Your task to perform on an android device: refresh tabs in the chrome app Image 0: 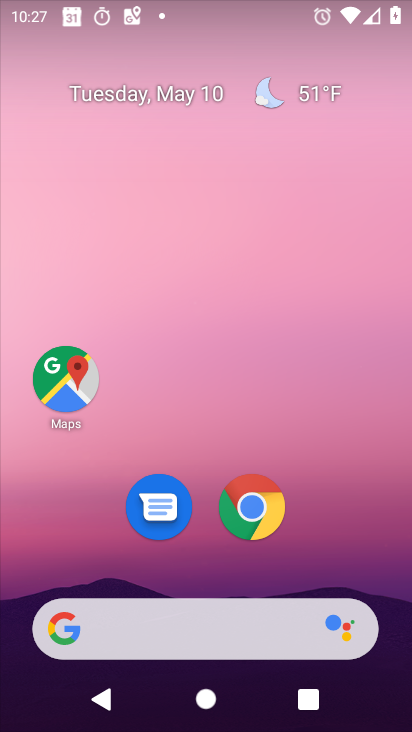
Step 0: click (251, 507)
Your task to perform on an android device: refresh tabs in the chrome app Image 1: 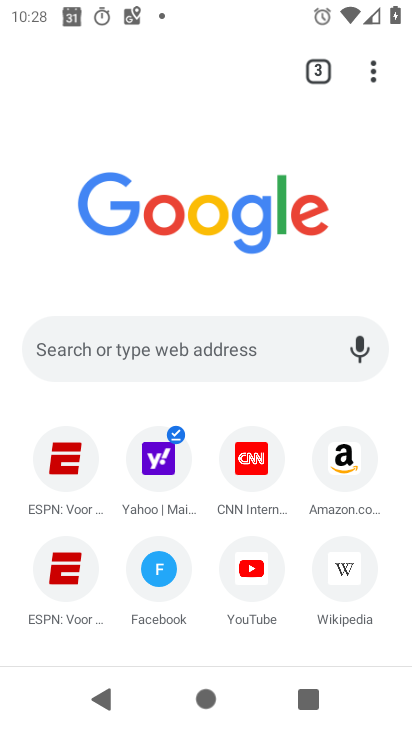
Step 1: click (369, 56)
Your task to perform on an android device: refresh tabs in the chrome app Image 2: 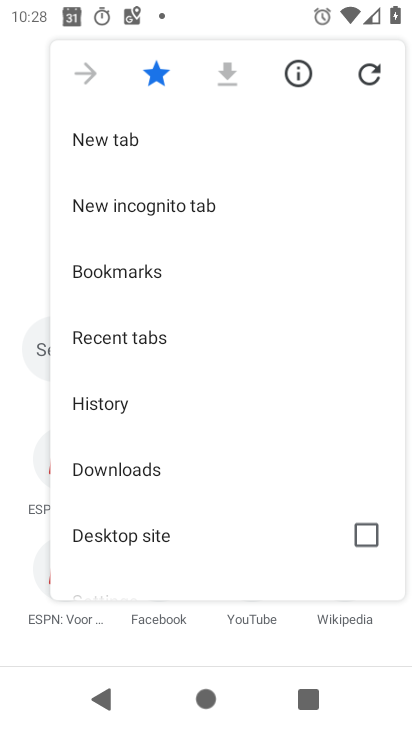
Step 2: click (390, 66)
Your task to perform on an android device: refresh tabs in the chrome app Image 3: 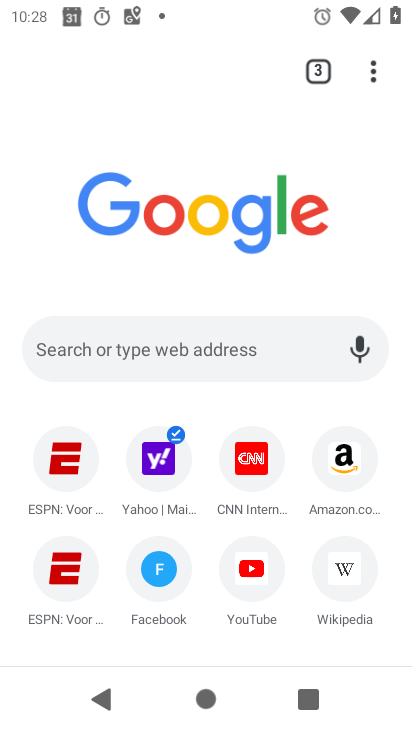
Step 3: task complete